Your task to perform on an android device: When is my next appointment? Image 0: 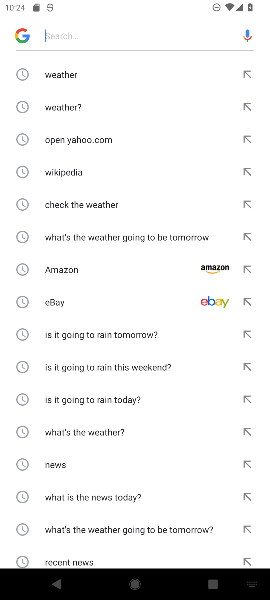
Step 0: press home button
Your task to perform on an android device: When is my next appointment? Image 1: 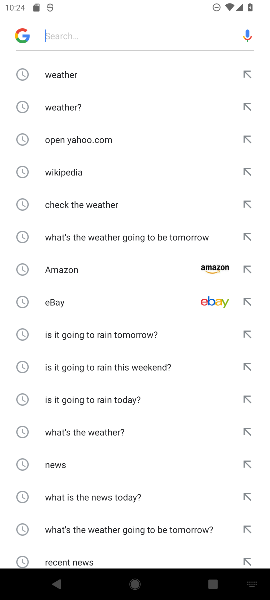
Step 1: press home button
Your task to perform on an android device: When is my next appointment? Image 2: 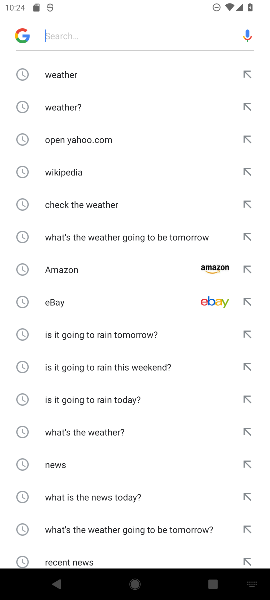
Step 2: press home button
Your task to perform on an android device: When is my next appointment? Image 3: 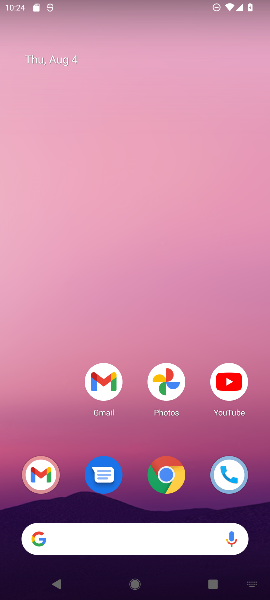
Step 3: press home button
Your task to perform on an android device: When is my next appointment? Image 4: 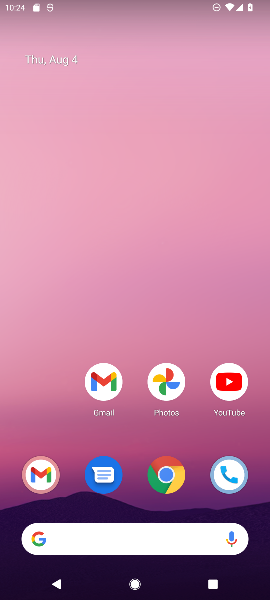
Step 4: drag from (137, 484) to (129, 86)
Your task to perform on an android device: When is my next appointment? Image 5: 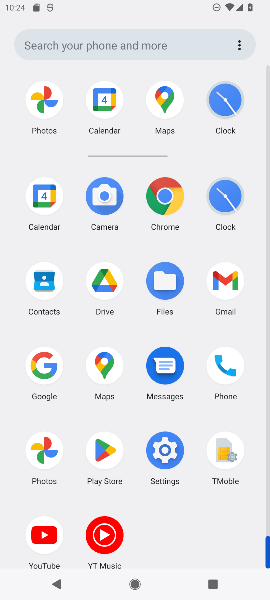
Step 5: drag from (160, 515) to (147, 214)
Your task to perform on an android device: When is my next appointment? Image 6: 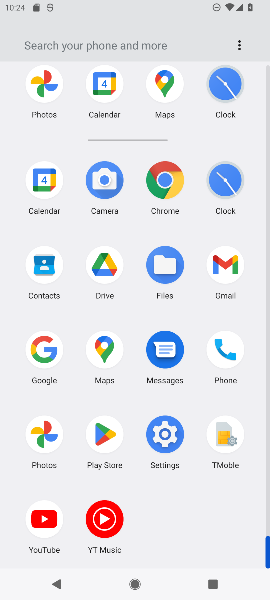
Step 6: drag from (147, 455) to (176, 12)
Your task to perform on an android device: When is my next appointment? Image 7: 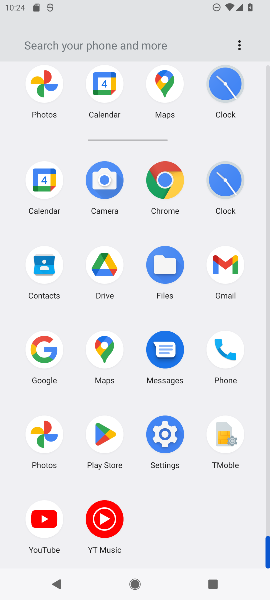
Step 7: drag from (150, 531) to (106, 259)
Your task to perform on an android device: When is my next appointment? Image 8: 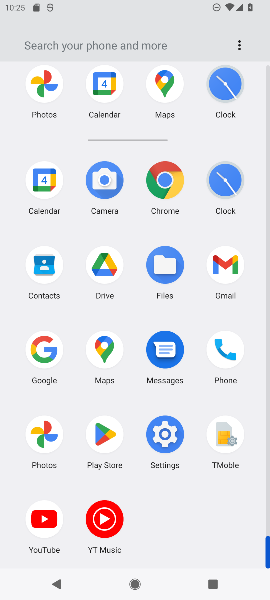
Step 8: drag from (149, 525) to (213, 152)
Your task to perform on an android device: When is my next appointment? Image 9: 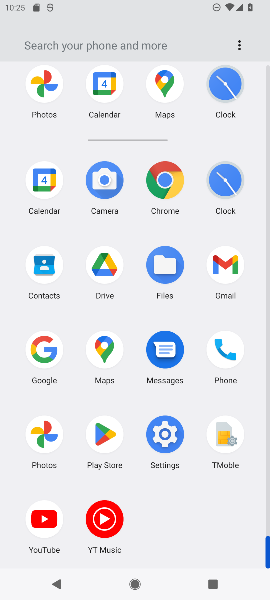
Step 9: drag from (130, 471) to (130, 159)
Your task to perform on an android device: When is my next appointment? Image 10: 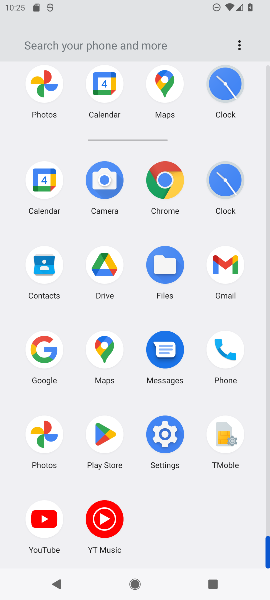
Step 10: drag from (166, 501) to (237, 75)
Your task to perform on an android device: When is my next appointment? Image 11: 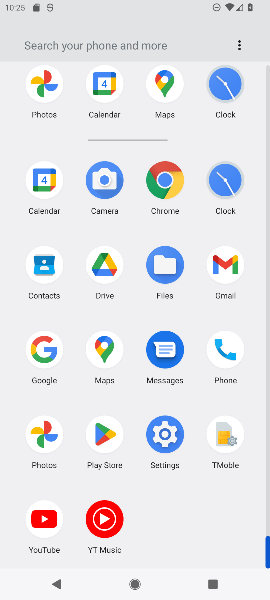
Step 11: drag from (146, 462) to (176, 204)
Your task to perform on an android device: When is my next appointment? Image 12: 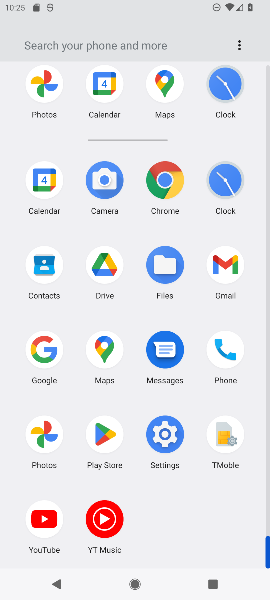
Step 12: drag from (141, 434) to (126, 89)
Your task to perform on an android device: When is my next appointment? Image 13: 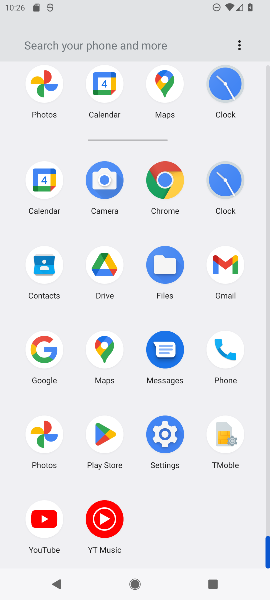
Step 13: drag from (96, 419) to (136, 196)
Your task to perform on an android device: When is my next appointment? Image 14: 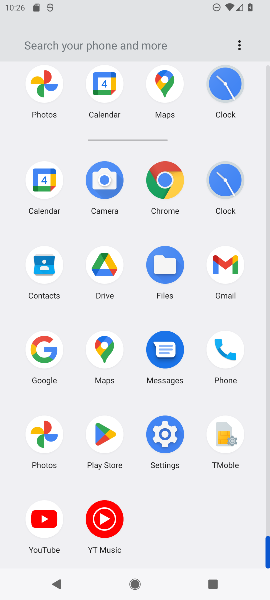
Step 14: click (37, 186)
Your task to perform on an android device: When is my next appointment? Image 15: 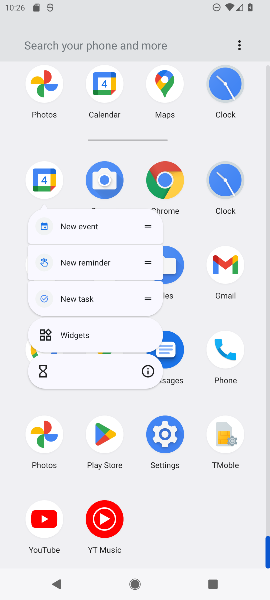
Step 15: click (153, 364)
Your task to perform on an android device: When is my next appointment? Image 16: 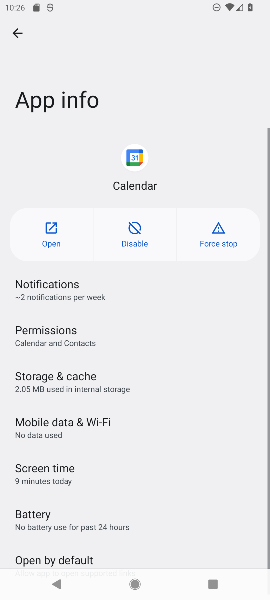
Step 16: click (51, 227)
Your task to perform on an android device: When is my next appointment? Image 17: 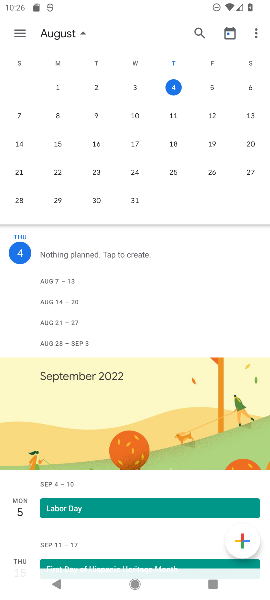
Step 17: click (234, 30)
Your task to perform on an android device: When is my next appointment? Image 18: 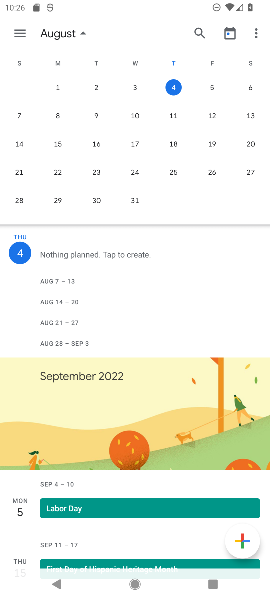
Step 18: click (223, 34)
Your task to perform on an android device: When is my next appointment? Image 19: 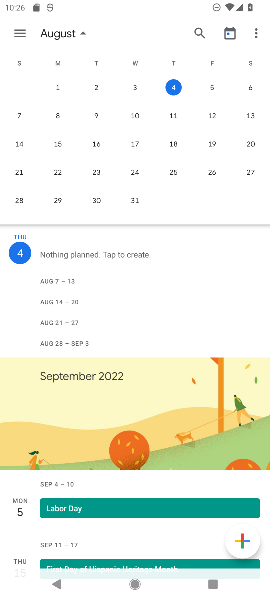
Step 19: task complete